Your task to perform on an android device: Open display settings Image 0: 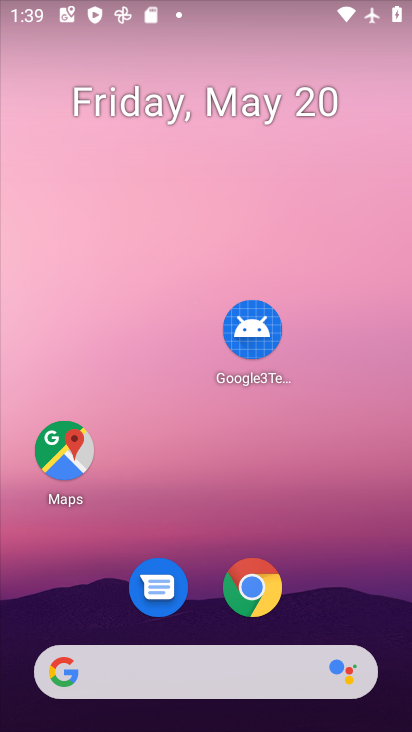
Step 0: drag from (342, 532) to (227, 51)
Your task to perform on an android device: Open display settings Image 1: 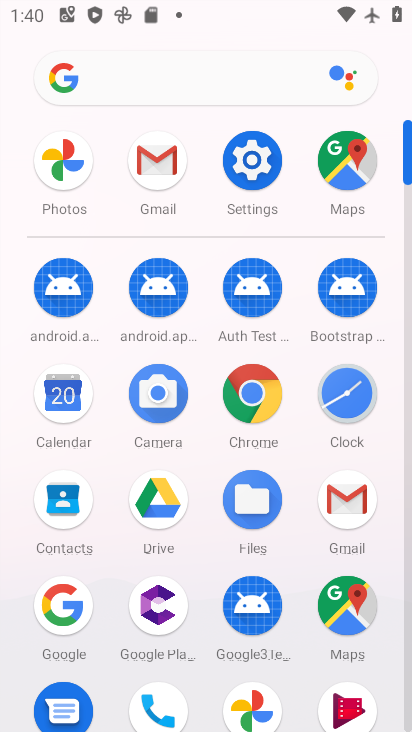
Step 1: click (254, 157)
Your task to perform on an android device: Open display settings Image 2: 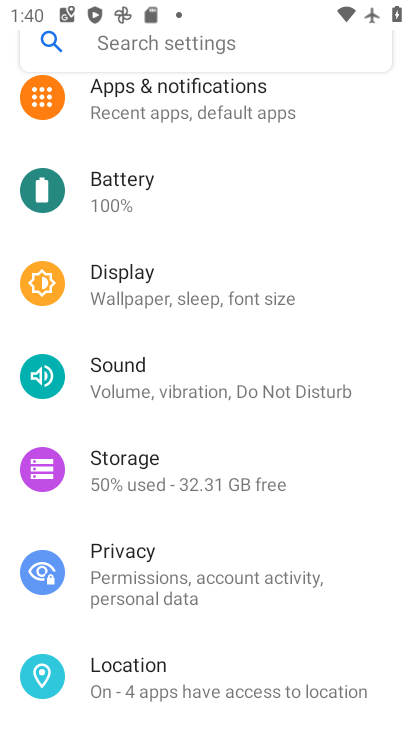
Step 2: click (108, 271)
Your task to perform on an android device: Open display settings Image 3: 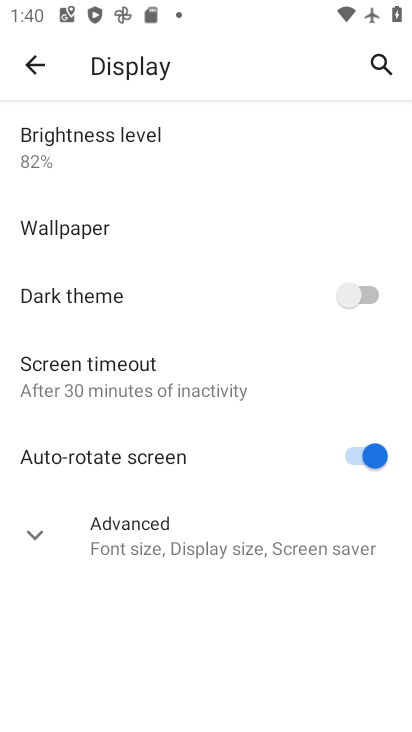
Step 3: task complete